Your task to perform on an android device: turn on notifications settings in the gmail app Image 0: 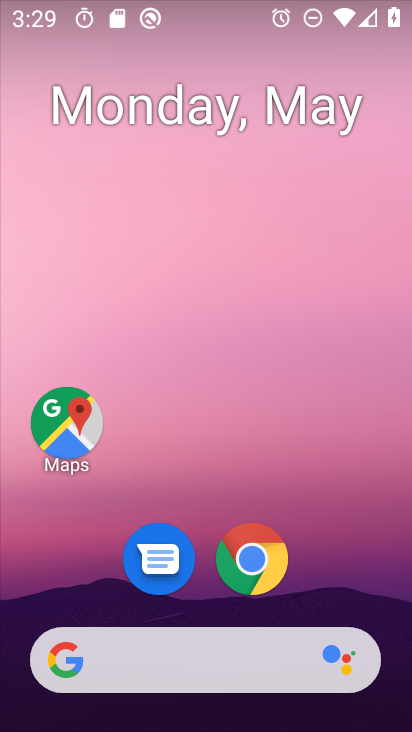
Step 0: drag from (220, 596) to (264, 207)
Your task to perform on an android device: turn on notifications settings in the gmail app Image 1: 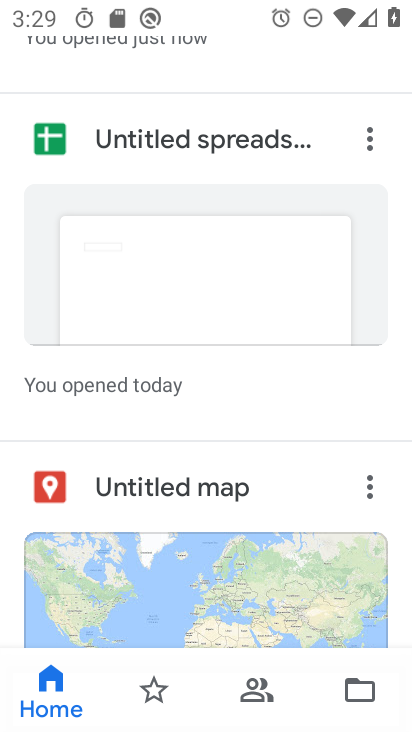
Step 1: drag from (193, 551) to (325, 92)
Your task to perform on an android device: turn on notifications settings in the gmail app Image 2: 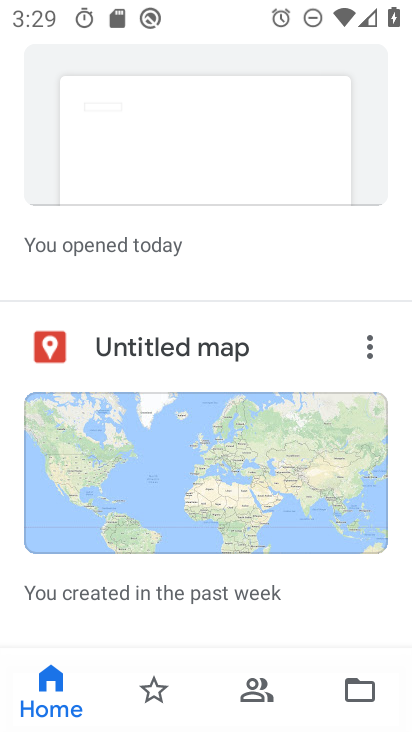
Step 2: drag from (246, 180) to (269, 698)
Your task to perform on an android device: turn on notifications settings in the gmail app Image 3: 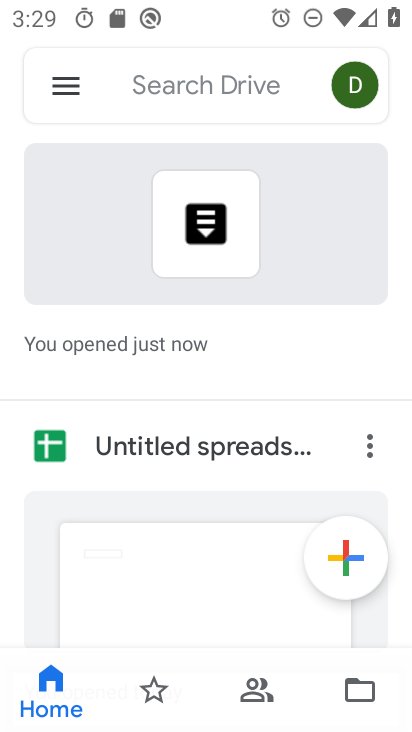
Step 3: drag from (196, 630) to (286, 81)
Your task to perform on an android device: turn on notifications settings in the gmail app Image 4: 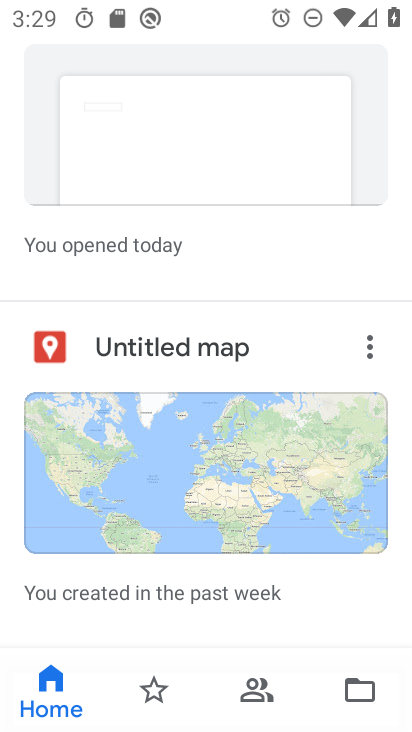
Step 4: drag from (165, 597) to (262, 58)
Your task to perform on an android device: turn on notifications settings in the gmail app Image 5: 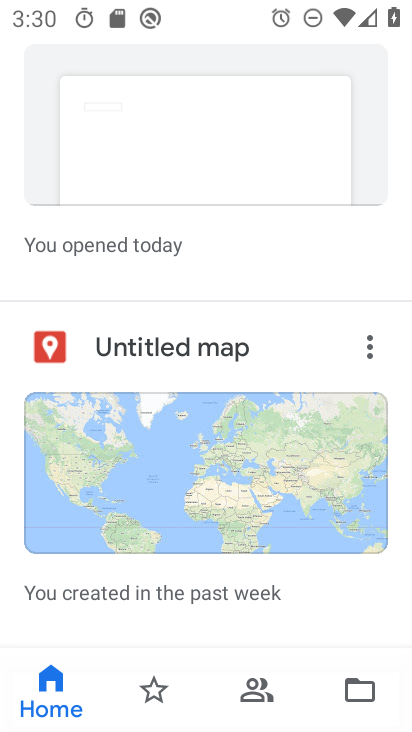
Step 5: drag from (232, 622) to (269, 280)
Your task to perform on an android device: turn on notifications settings in the gmail app Image 6: 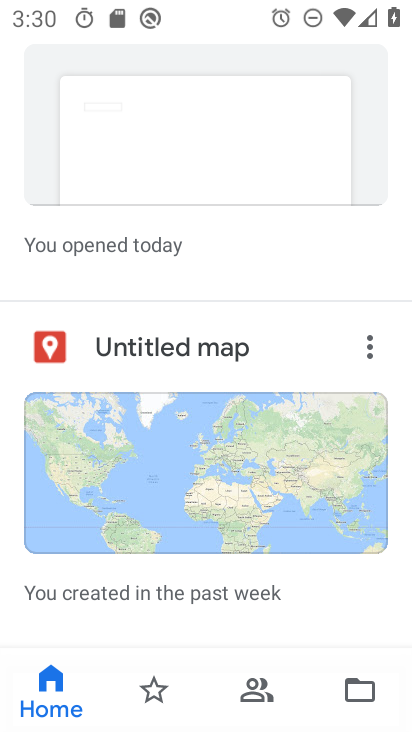
Step 6: drag from (226, 247) to (293, 725)
Your task to perform on an android device: turn on notifications settings in the gmail app Image 7: 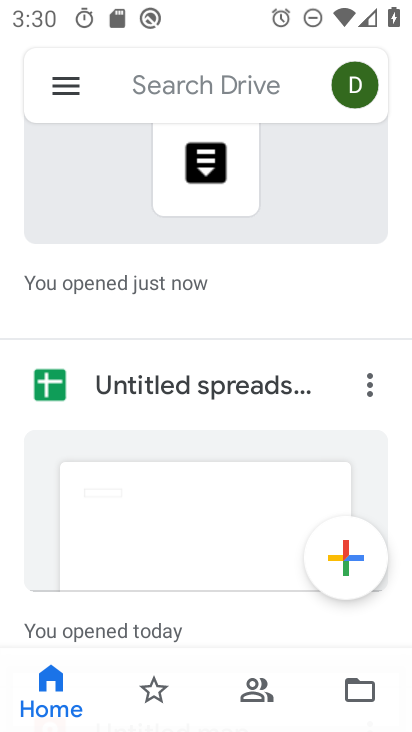
Step 7: press home button
Your task to perform on an android device: turn on notifications settings in the gmail app Image 8: 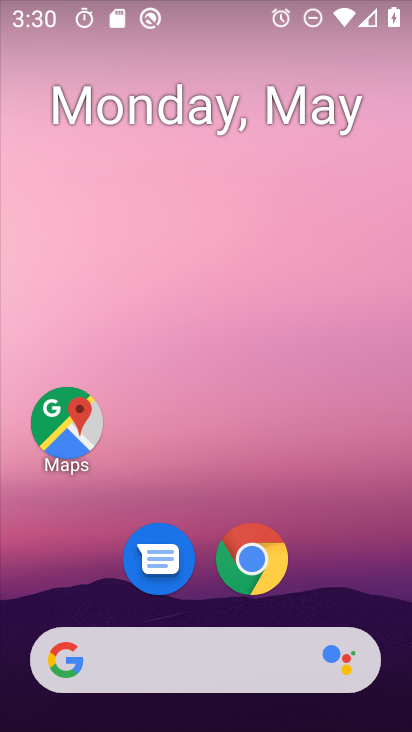
Step 8: drag from (206, 598) to (208, 158)
Your task to perform on an android device: turn on notifications settings in the gmail app Image 9: 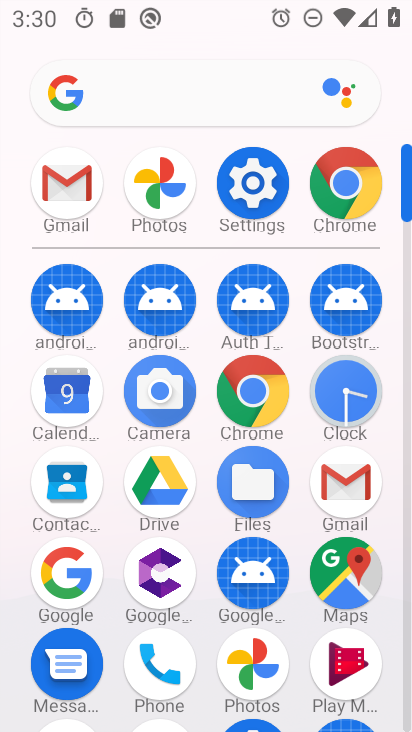
Step 9: click (351, 475)
Your task to perform on an android device: turn on notifications settings in the gmail app Image 10: 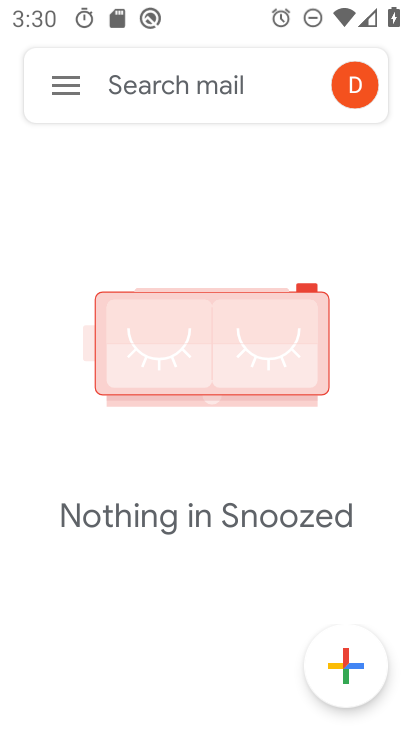
Step 10: drag from (223, 576) to (239, 292)
Your task to perform on an android device: turn on notifications settings in the gmail app Image 11: 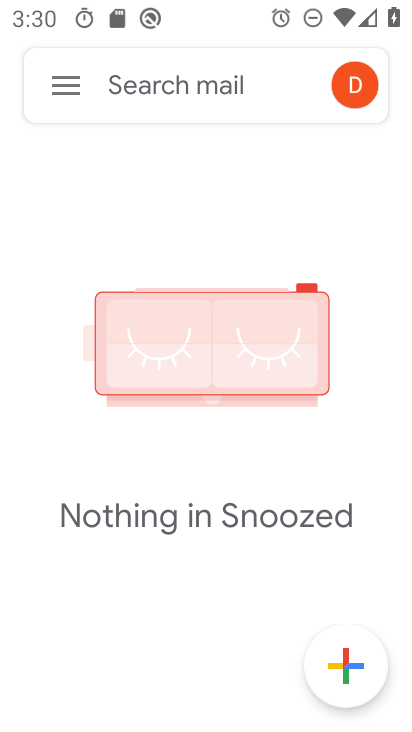
Step 11: drag from (223, 244) to (221, 665)
Your task to perform on an android device: turn on notifications settings in the gmail app Image 12: 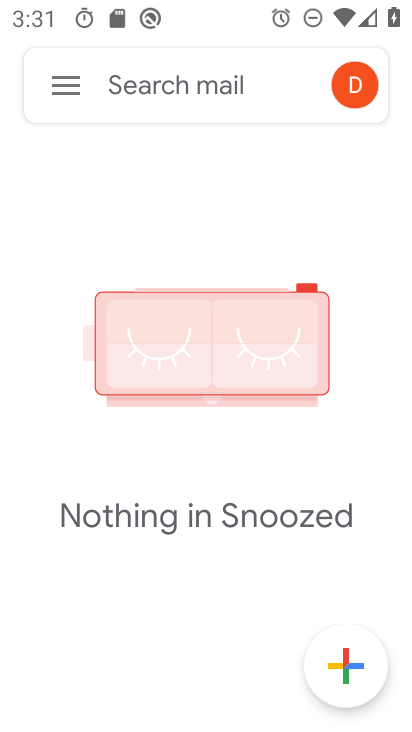
Step 12: click (53, 106)
Your task to perform on an android device: turn on notifications settings in the gmail app Image 13: 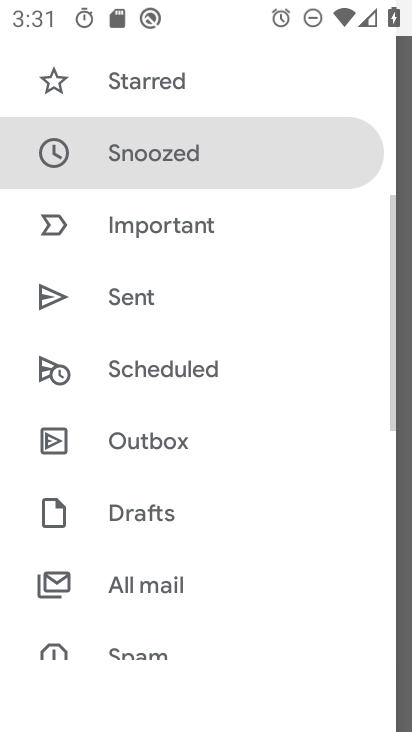
Step 13: drag from (231, 559) to (315, 1)
Your task to perform on an android device: turn on notifications settings in the gmail app Image 14: 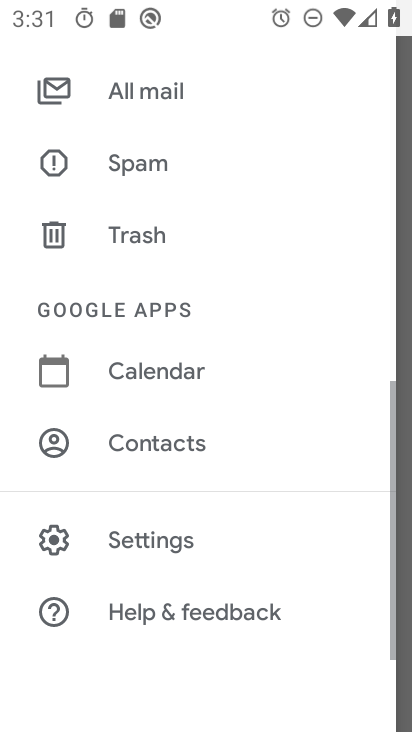
Step 14: click (161, 536)
Your task to perform on an android device: turn on notifications settings in the gmail app Image 15: 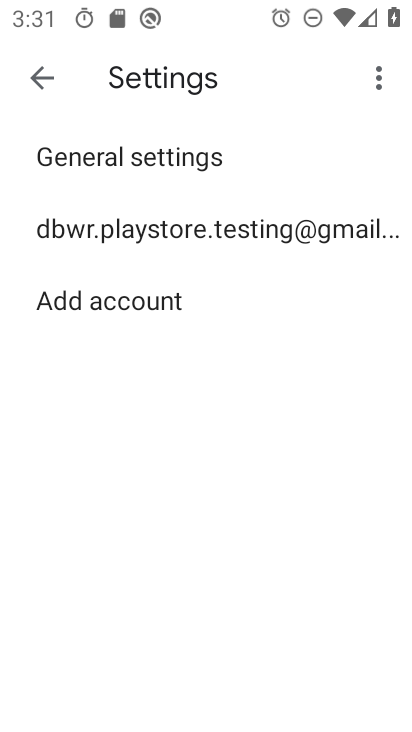
Step 15: drag from (247, 493) to (286, 183)
Your task to perform on an android device: turn on notifications settings in the gmail app Image 16: 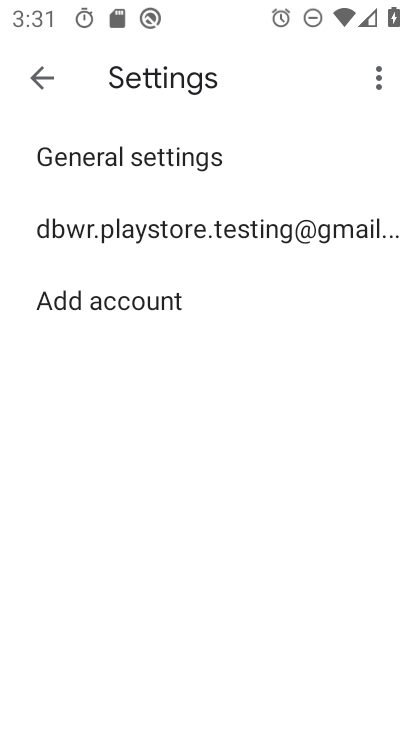
Step 16: click (167, 229)
Your task to perform on an android device: turn on notifications settings in the gmail app Image 17: 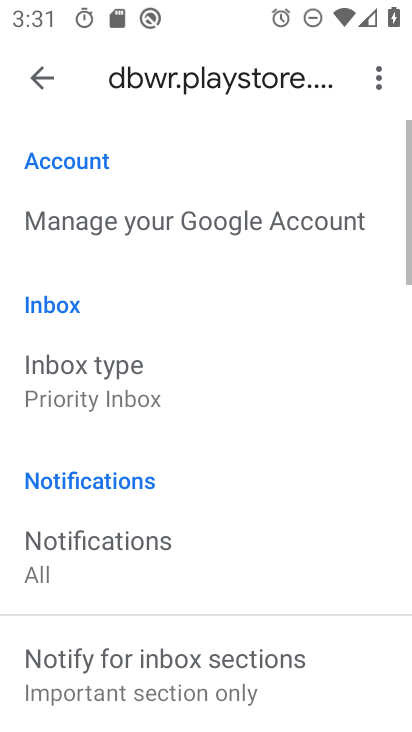
Step 17: drag from (143, 596) to (288, 88)
Your task to perform on an android device: turn on notifications settings in the gmail app Image 18: 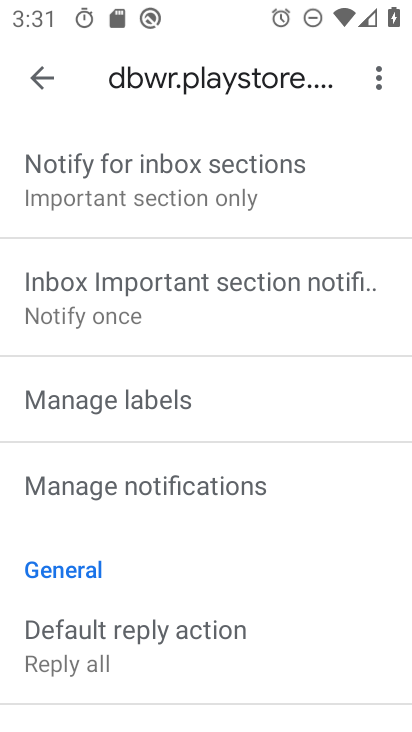
Step 18: click (82, 504)
Your task to perform on an android device: turn on notifications settings in the gmail app Image 19: 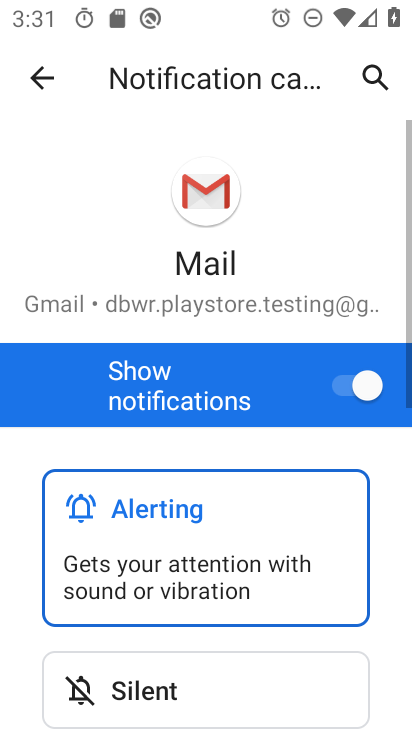
Step 19: task complete